Your task to perform on an android device: toggle notification dots Image 0: 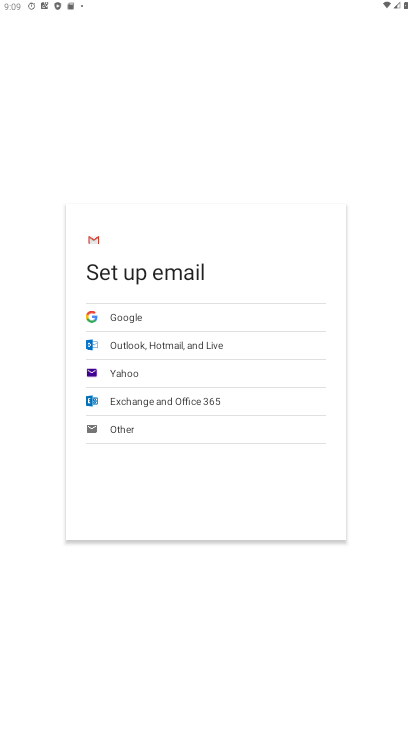
Step 0: press home button
Your task to perform on an android device: toggle notification dots Image 1: 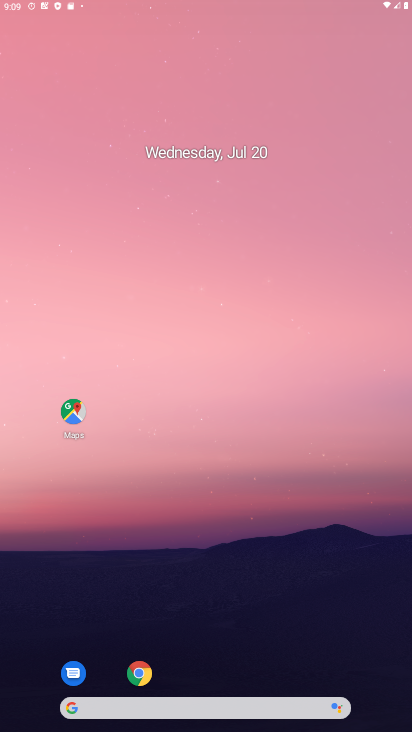
Step 1: drag from (365, 625) to (188, 111)
Your task to perform on an android device: toggle notification dots Image 2: 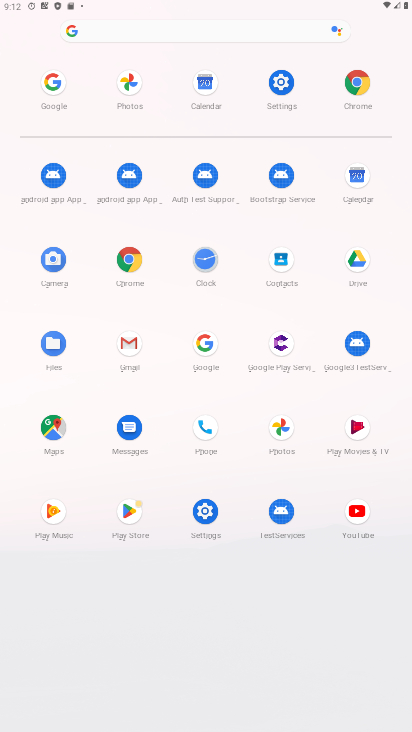
Step 2: click (207, 507)
Your task to perform on an android device: toggle notification dots Image 3: 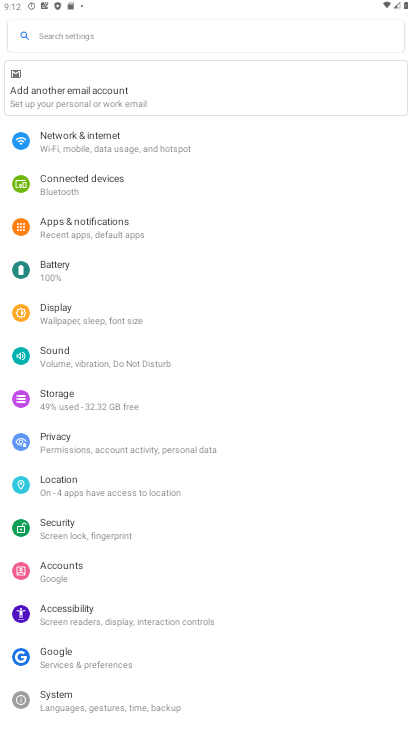
Step 3: click (107, 233)
Your task to perform on an android device: toggle notification dots Image 4: 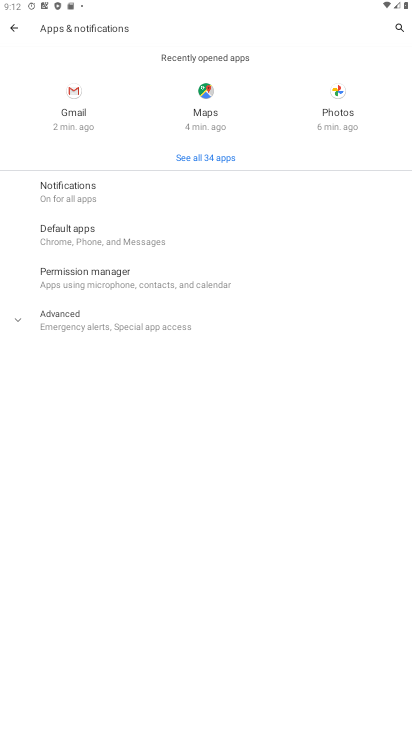
Step 4: click (73, 186)
Your task to perform on an android device: toggle notification dots Image 5: 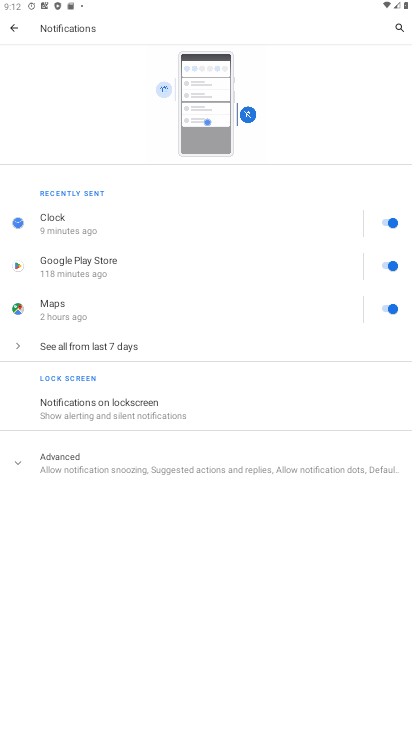
Step 5: click (69, 463)
Your task to perform on an android device: toggle notification dots Image 6: 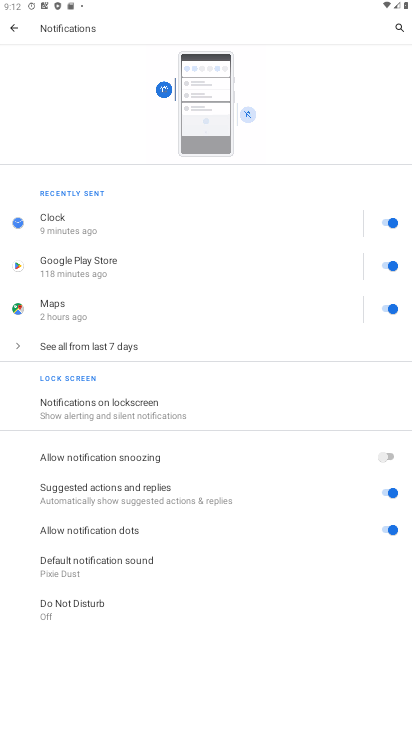
Step 6: click (138, 532)
Your task to perform on an android device: toggle notification dots Image 7: 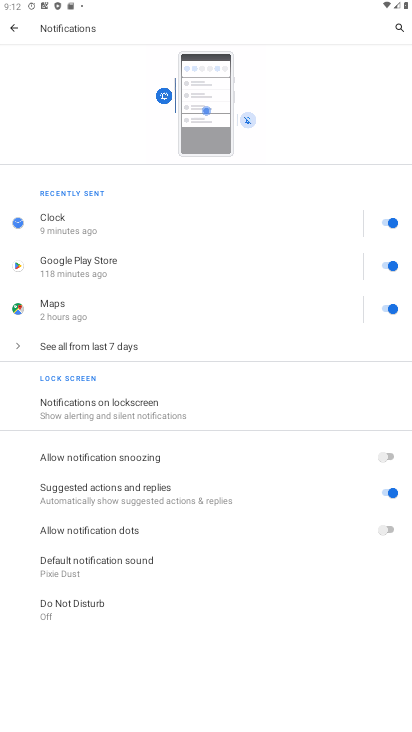
Step 7: task complete